Your task to perform on an android device: toggle data saver in the chrome app Image 0: 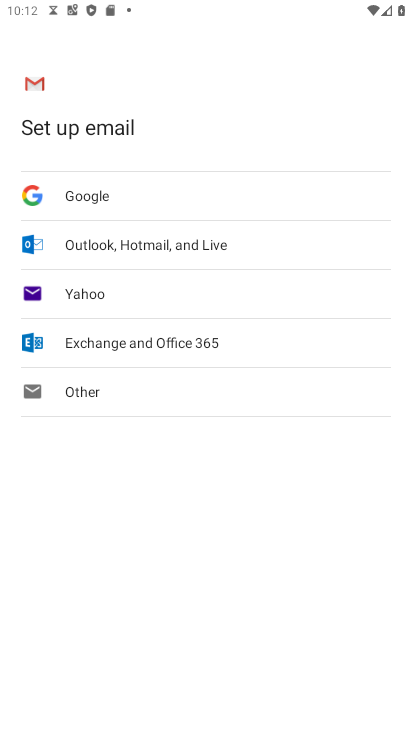
Step 0: press home button
Your task to perform on an android device: toggle data saver in the chrome app Image 1: 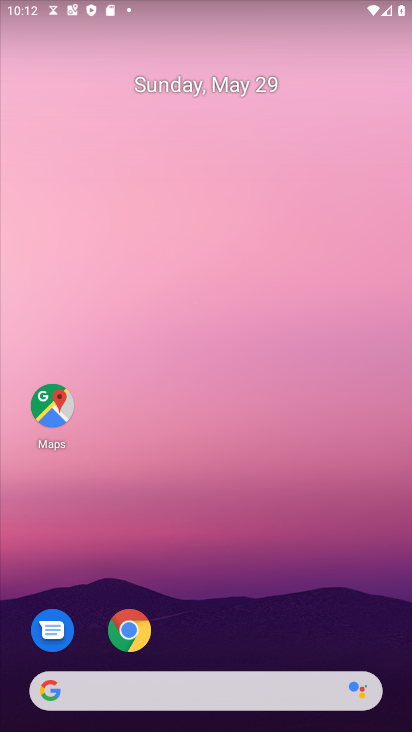
Step 1: click (123, 635)
Your task to perform on an android device: toggle data saver in the chrome app Image 2: 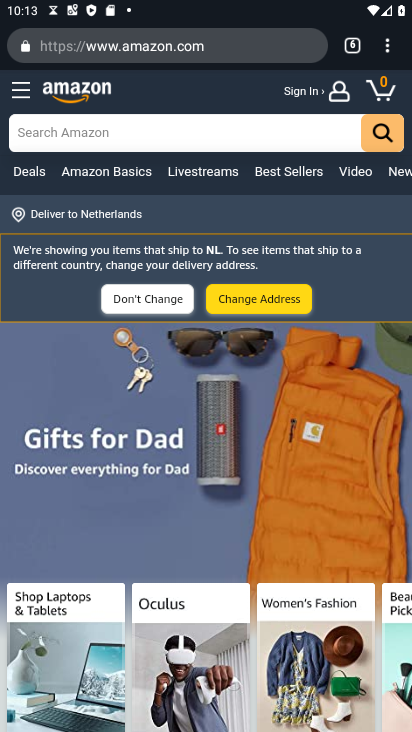
Step 2: click (392, 46)
Your task to perform on an android device: toggle data saver in the chrome app Image 3: 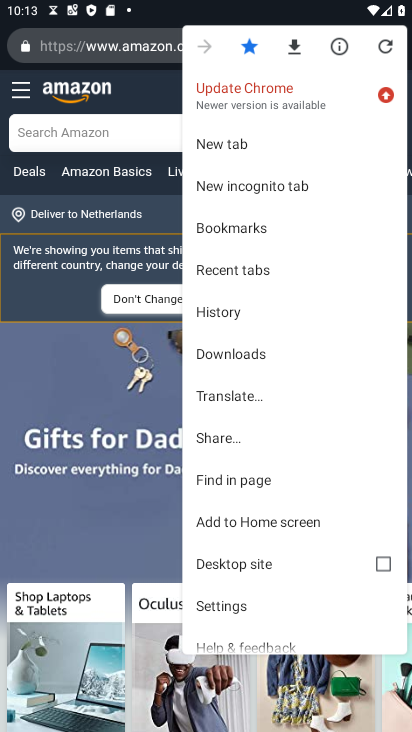
Step 3: click (220, 601)
Your task to perform on an android device: toggle data saver in the chrome app Image 4: 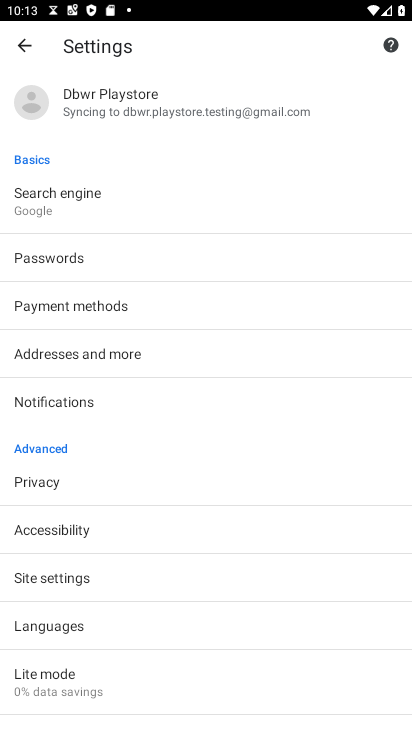
Step 4: click (82, 670)
Your task to perform on an android device: toggle data saver in the chrome app Image 5: 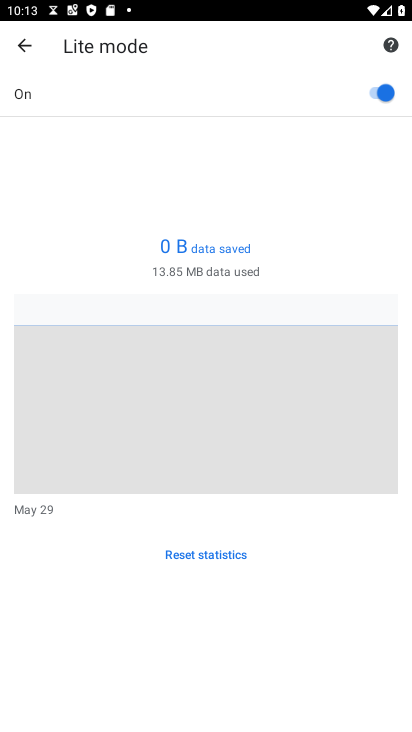
Step 5: click (377, 94)
Your task to perform on an android device: toggle data saver in the chrome app Image 6: 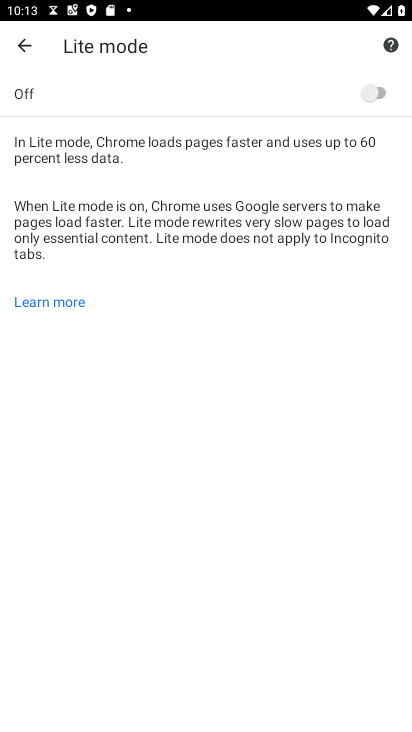
Step 6: task complete